Your task to perform on an android device: check battery use Image 0: 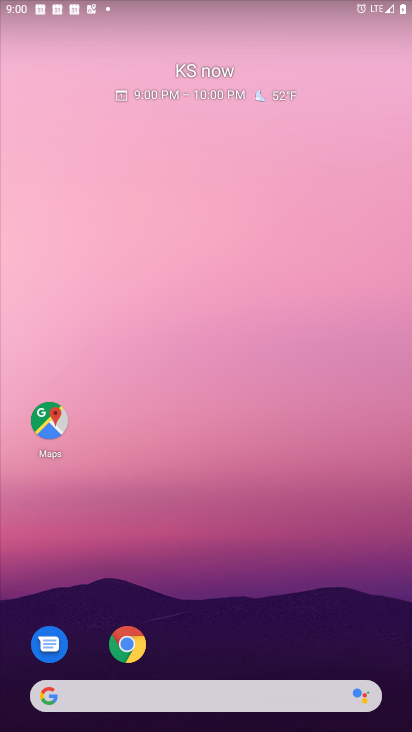
Step 0: drag from (381, 649) to (319, 129)
Your task to perform on an android device: check battery use Image 1: 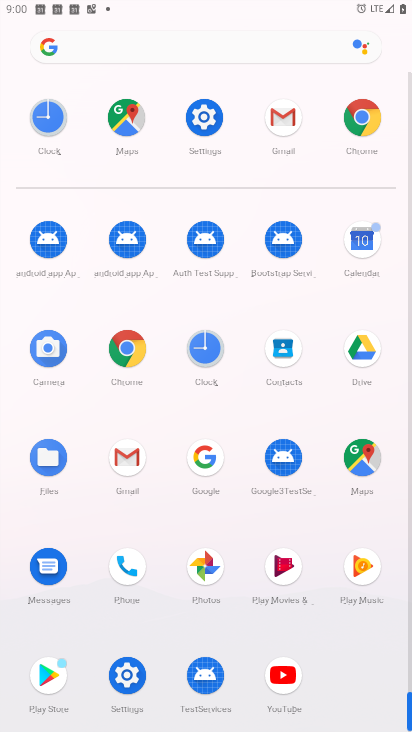
Step 1: click (126, 677)
Your task to perform on an android device: check battery use Image 2: 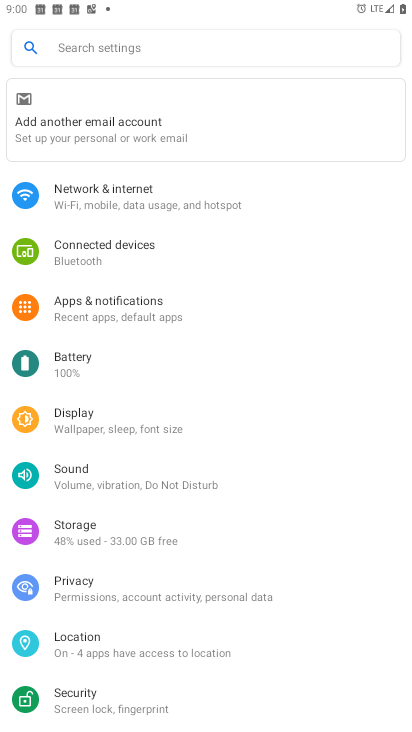
Step 2: click (64, 356)
Your task to perform on an android device: check battery use Image 3: 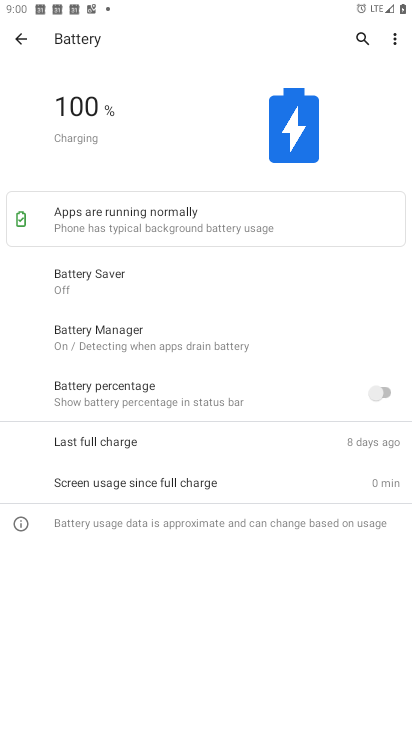
Step 3: task complete